Your task to perform on an android device: What is the recent news? Image 0: 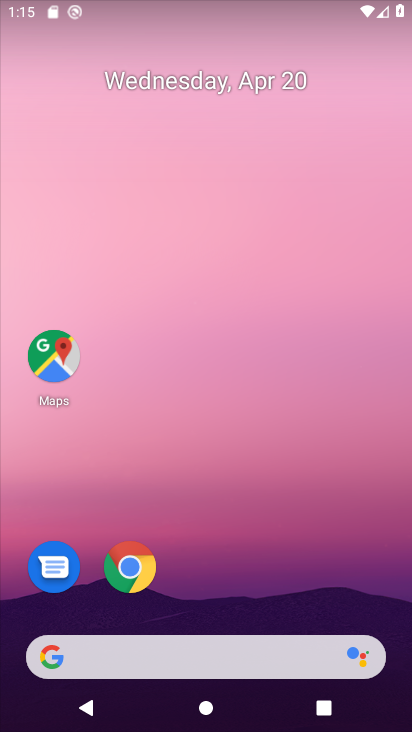
Step 0: drag from (29, 473) to (410, 493)
Your task to perform on an android device: What is the recent news? Image 1: 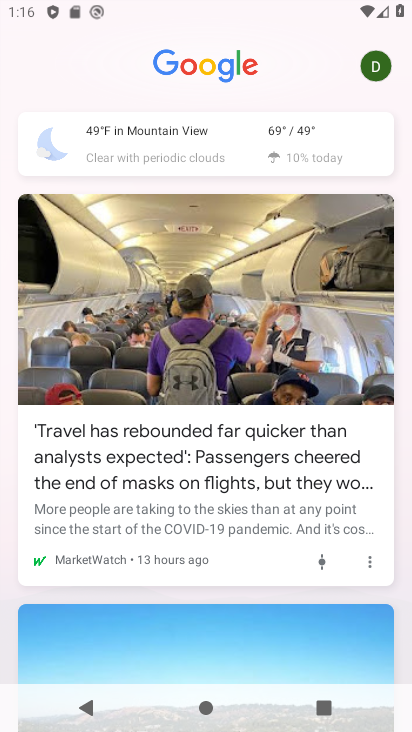
Step 1: task complete